Your task to perform on an android device: Open eBay Image 0: 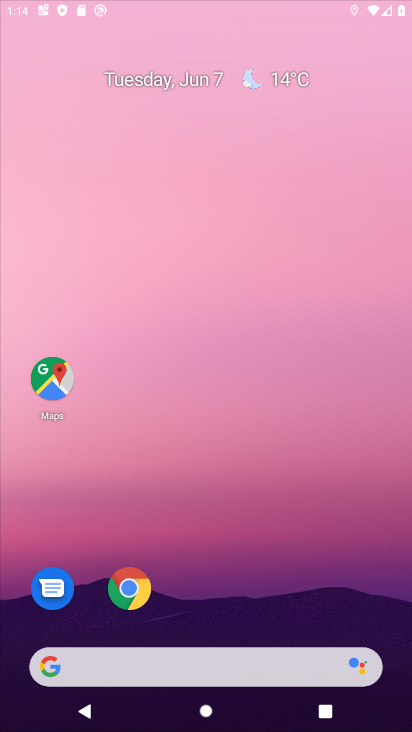
Step 0: press home button
Your task to perform on an android device: Open eBay Image 1: 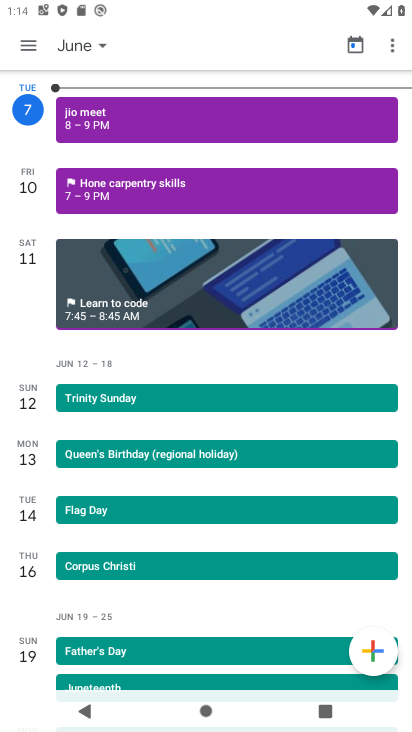
Step 1: drag from (215, 195) to (202, 123)
Your task to perform on an android device: Open eBay Image 2: 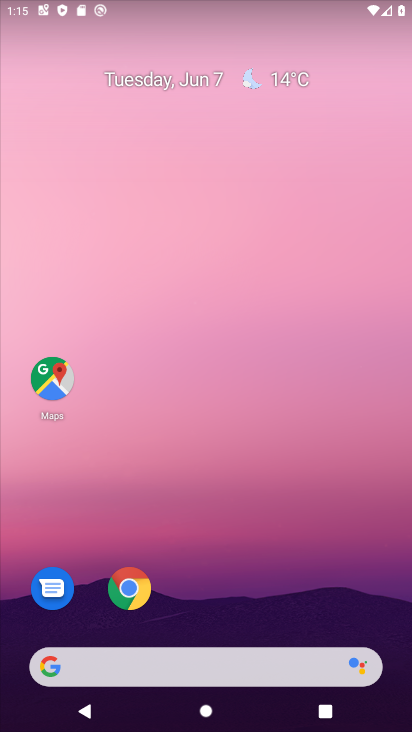
Step 2: click (145, 576)
Your task to perform on an android device: Open eBay Image 3: 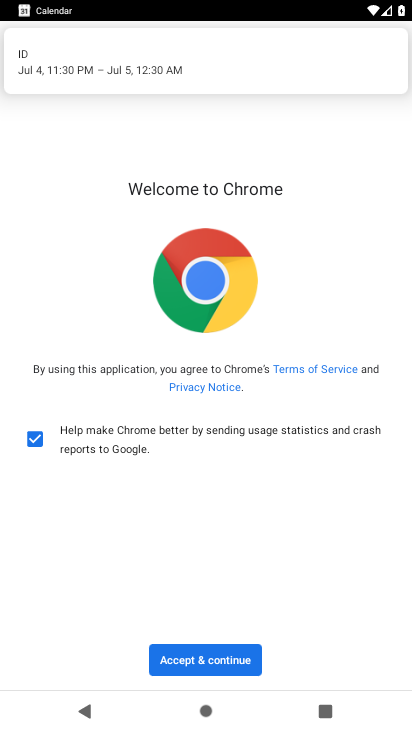
Step 3: click (216, 656)
Your task to perform on an android device: Open eBay Image 4: 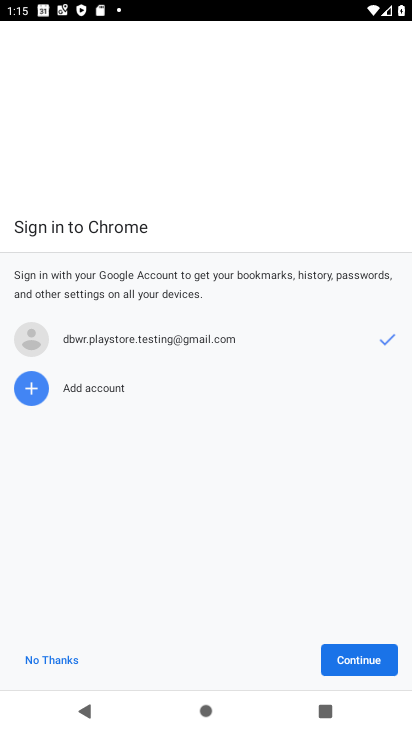
Step 4: click (343, 658)
Your task to perform on an android device: Open eBay Image 5: 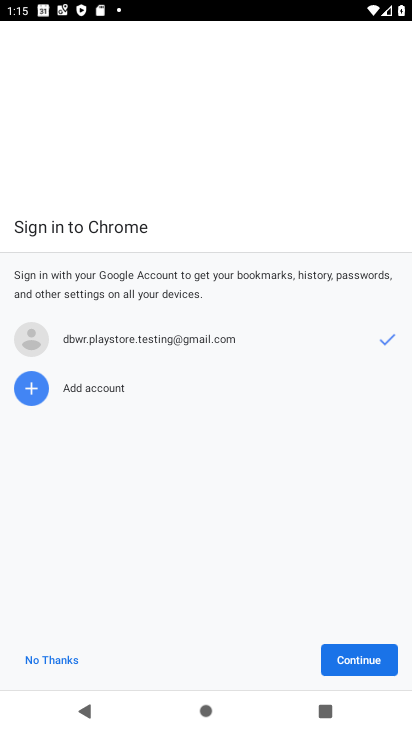
Step 5: click (352, 653)
Your task to perform on an android device: Open eBay Image 6: 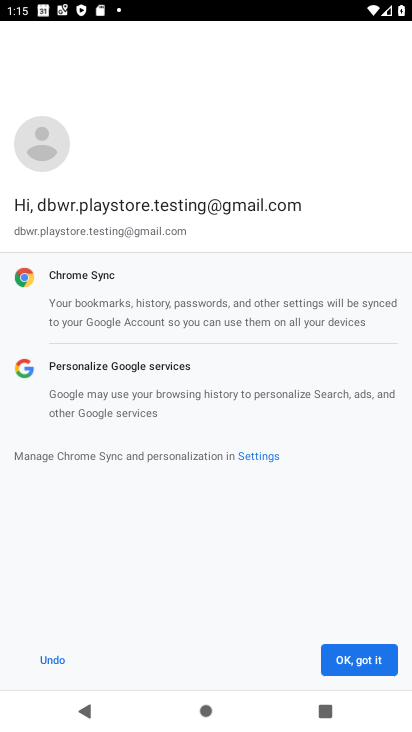
Step 6: click (353, 652)
Your task to perform on an android device: Open eBay Image 7: 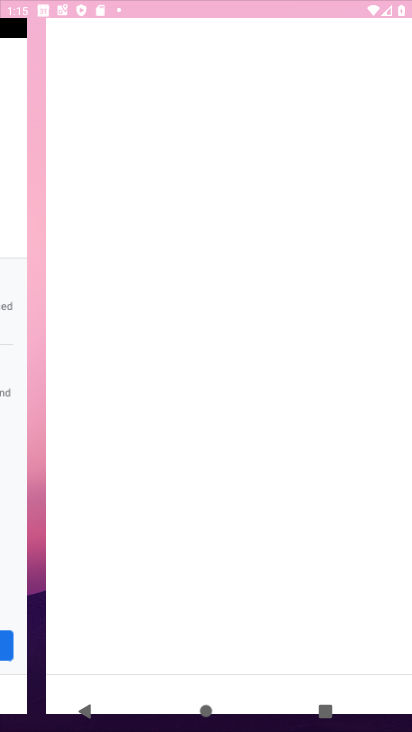
Step 7: click (359, 647)
Your task to perform on an android device: Open eBay Image 8: 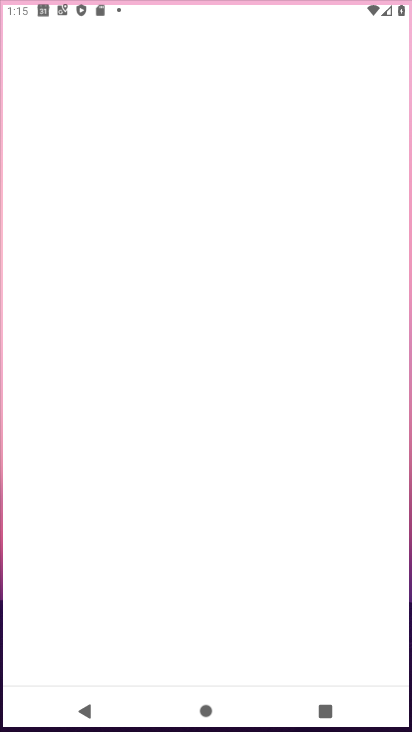
Step 8: click (360, 644)
Your task to perform on an android device: Open eBay Image 9: 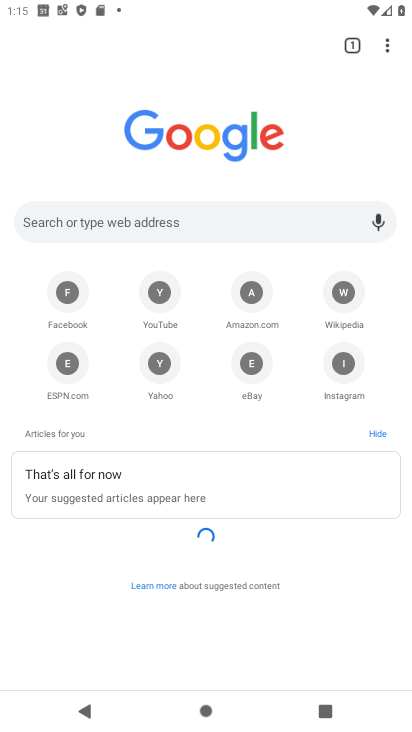
Step 9: click (254, 374)
Your task to perform on an android device: Open eBay Image 10: 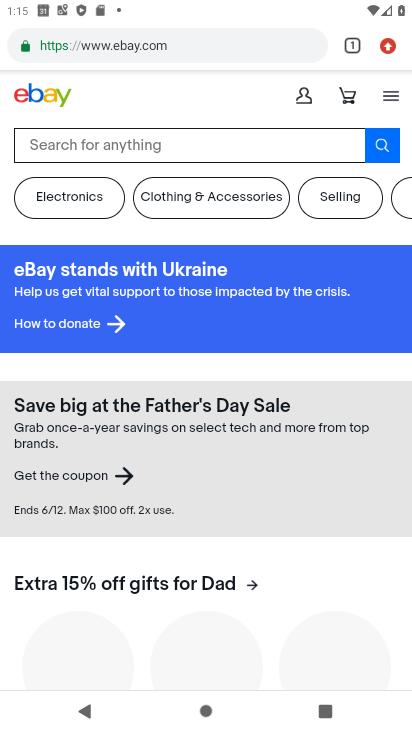
Step 10: task complete